Your task to perform on an android device: Search for sushi restaurants on Maps Image 0: 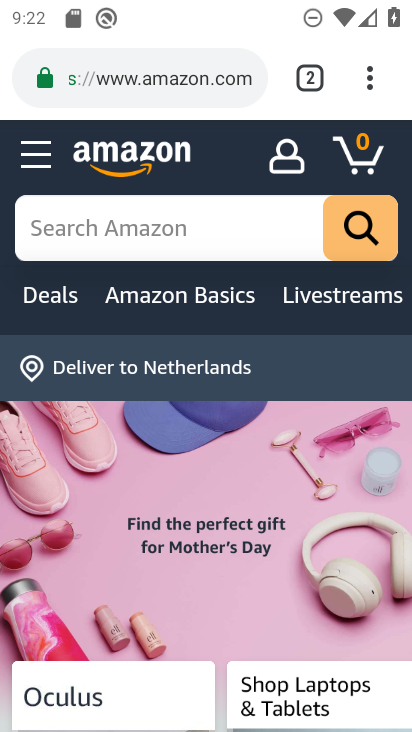
Step 0: press home button
Your task to perform on an android device: Search for sushi restaurants on Maps Image 1: 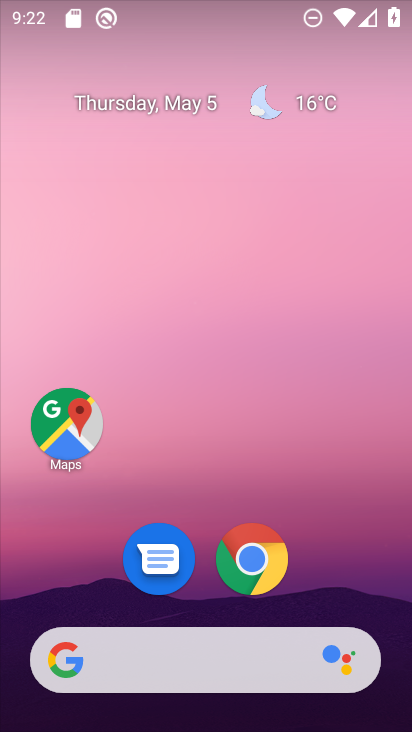
Step 1: click (68, 425)
Your task to perform on an android device: Search for sushi restaurants on Maps Image 2: 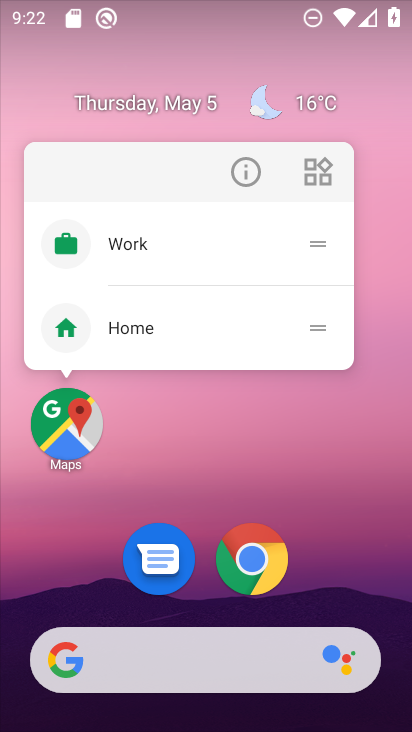
Step 2: click (69, 435)
Your task to perform on an android device: Search for sushi restaurants on Maps Image 3: 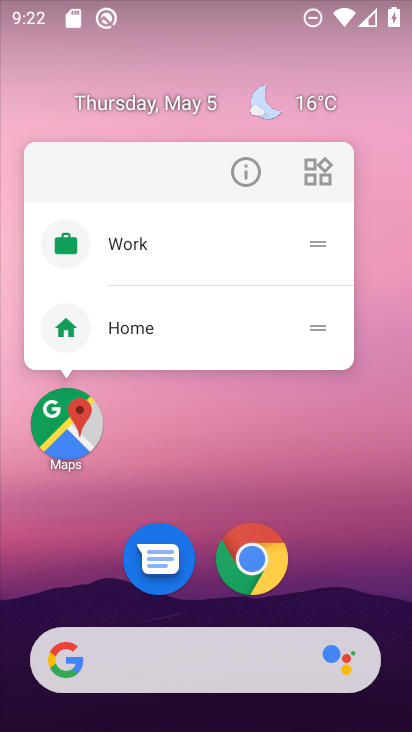
Step 3: click (64, 428)
Your task to perform on an android device: Search for sushi restaurants on Maps Image 4: 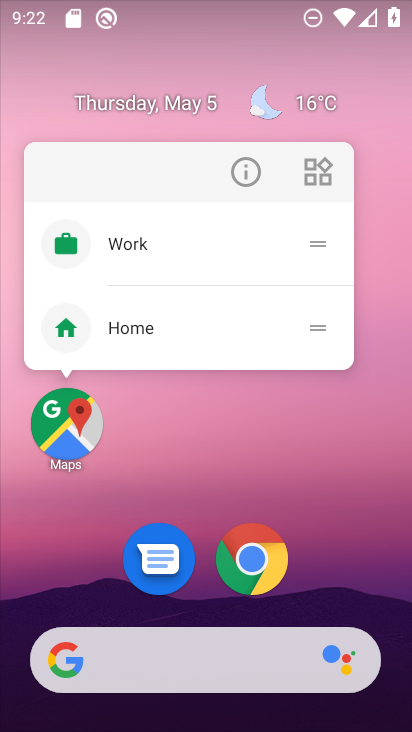
Step 4: click (70, 429)
Your task to perform on an android device: Search for sushi restaurants on Maps Image 5: 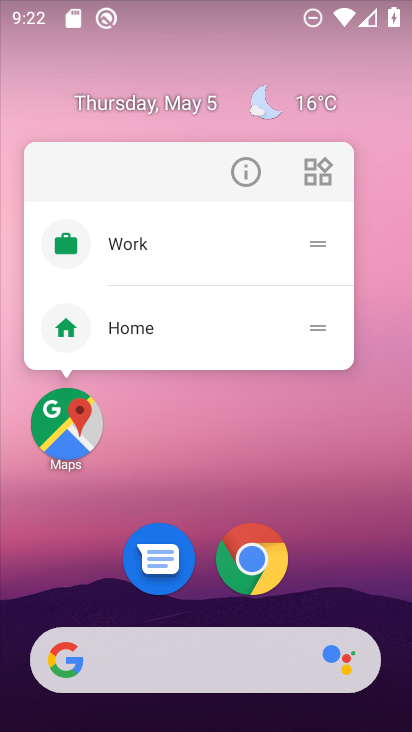
Step 5: click (63, 426)
Your task to perform on an android device: Search for sushi restaurants on Maps Image 6: 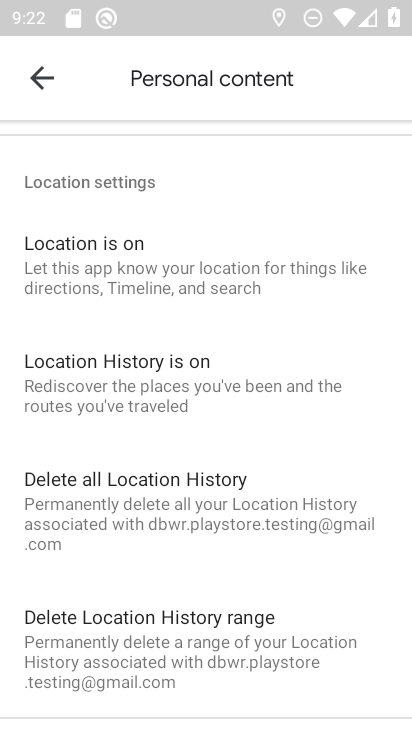
Step 6: click (43, 87)
Your task to perform on an android device: Search for sushi restaurants on Maps Image 7: 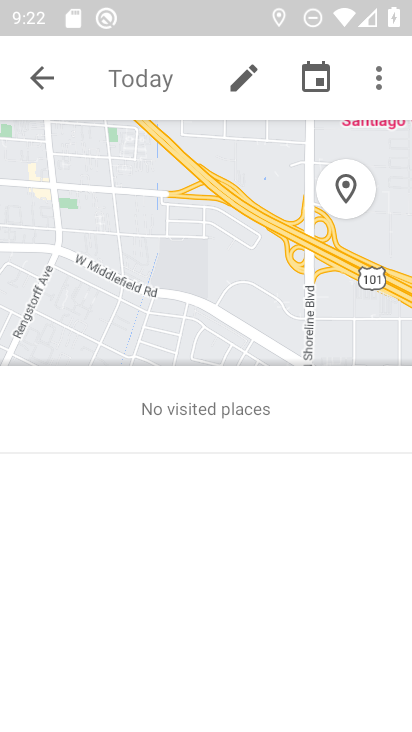
Step 7: click (43, 87)
Your task to perform on an android device: Search for sushi restaurants on Maps Image 8: 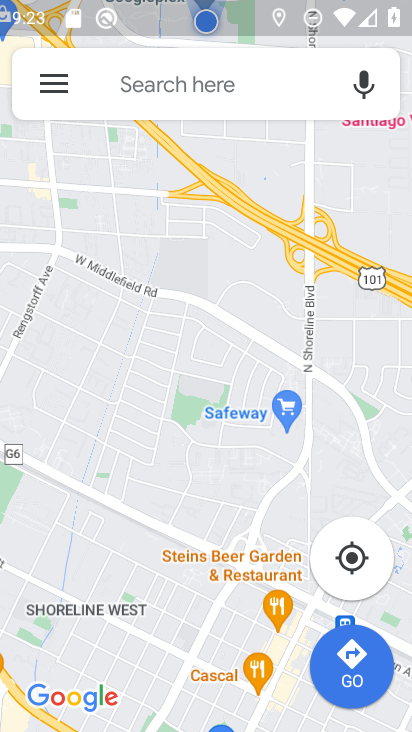
Step 8: click (137, 90)
Your task to perform on an android device: Search for sushi restaurants on Maps Image 9: 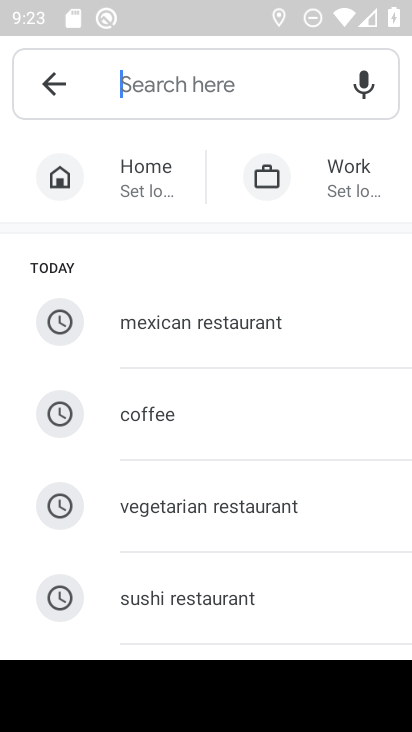
Step 9: type "sushi restaurant "
Your task to perform on an android device: Search for sushi restaurants on Maps Image 10: 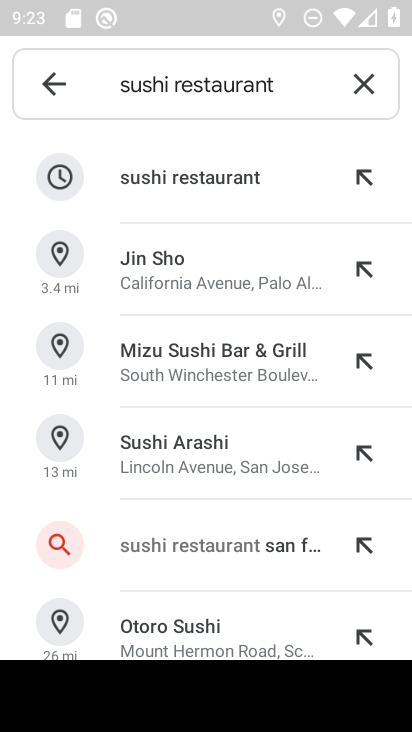
Step 10: click (127, 176)
Your task to perform on an android device: Search for sushi restaurants on Maps Image 11: 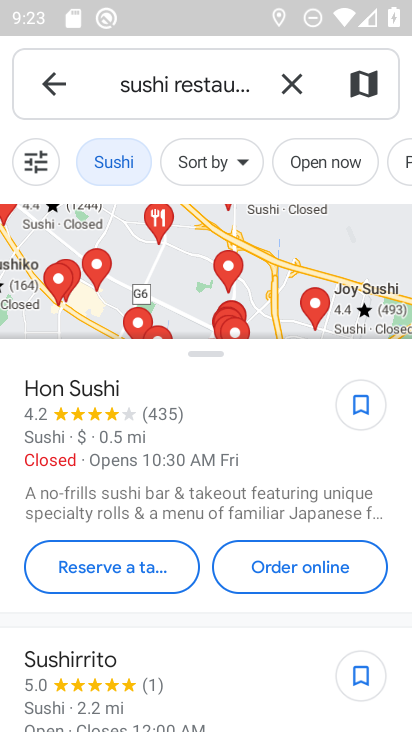
Step 11: task complete